Your task to perform on an android device: Open Google Image 0: 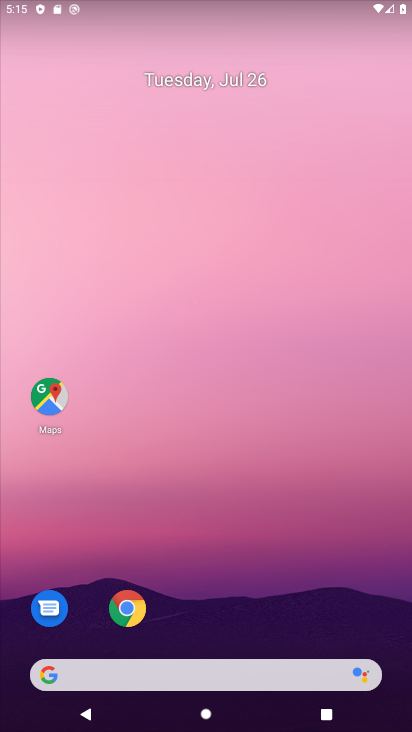
Step 0: press home button
Your task to perform on an android device: Open Google Image 1: 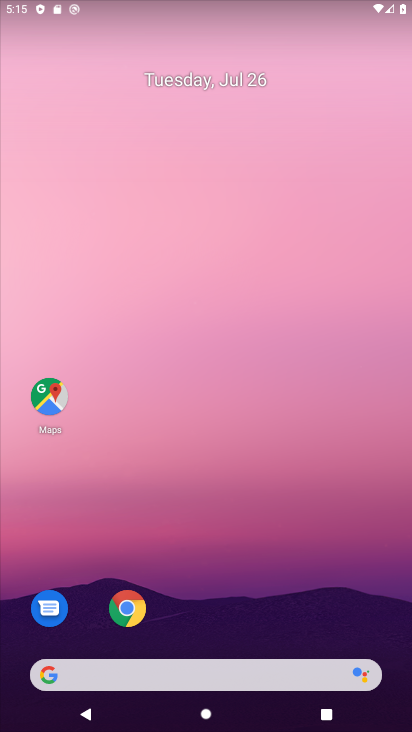
Step 1: click (45, 673)
Your task to perform on an android device: Open Google Image 2: 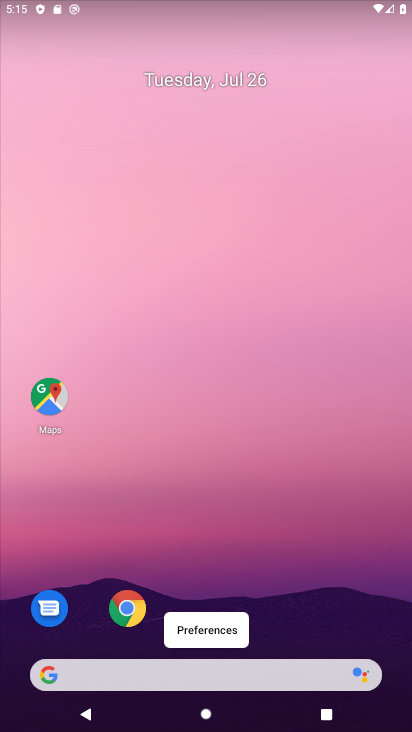
Step 2: click (47, 671)
Your task to perform on an android device: Open Google Image 3: 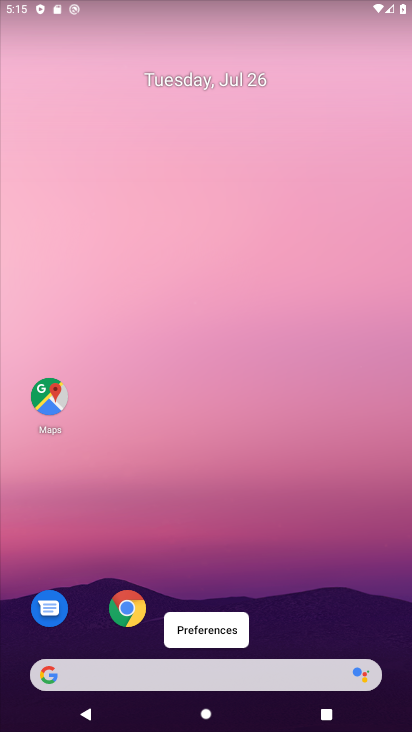
Step 3: click (53, 676)
Your task to perform on an android device: Open Google Image 4: 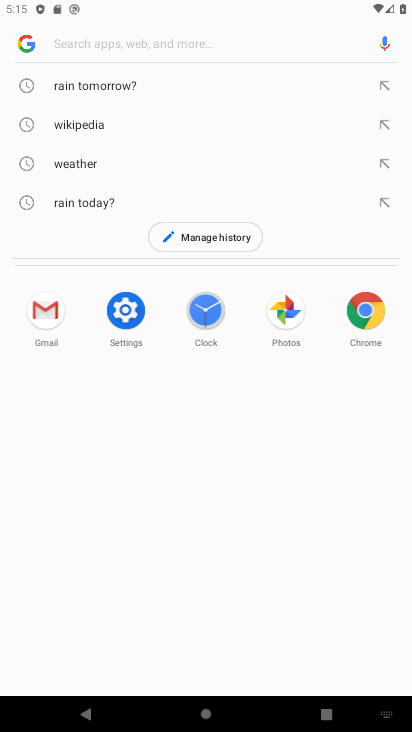
Step 4: task complete